Your task to perform on an android device: add a contact Image 0: 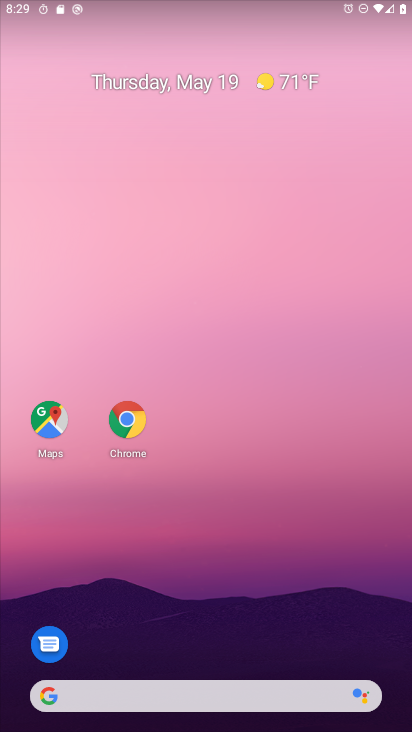
Step 0: drag from (200, 678) to (198, 300)
Your task to perform on an android device: add a contact Image 1: 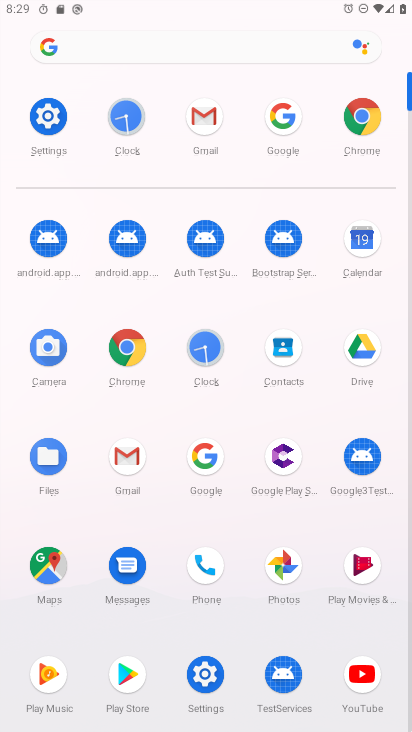
Step 1: click (276, 355)
Your task to perform on an android device: add a contact Image 2: 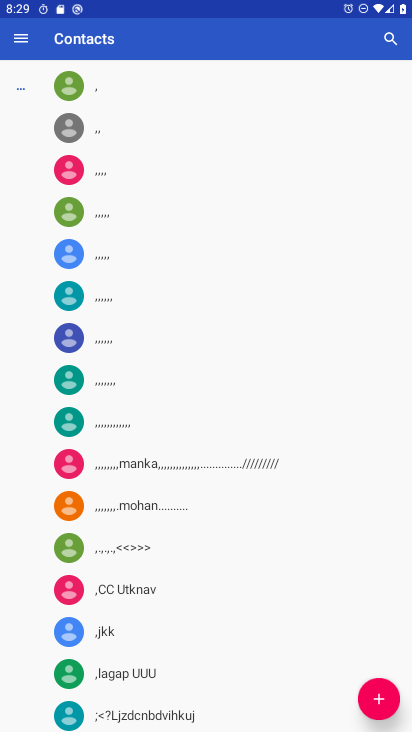
Step 2: click (373, 698)
Your task to perform on an android device: add a contact Image 3: 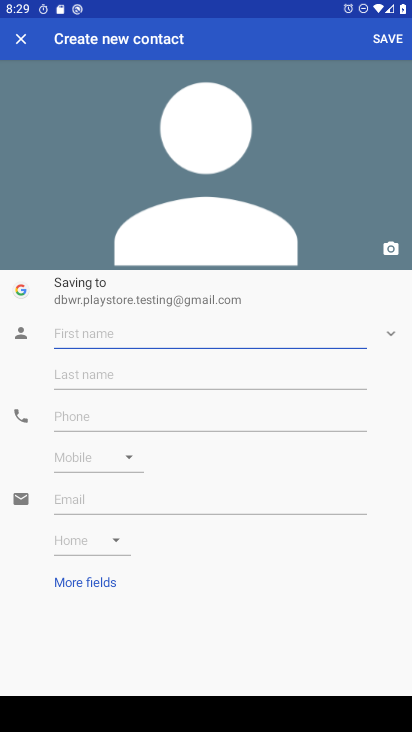
Step 3: click (110, 340)
Your task to perform on an android device: add a contact Image 4: 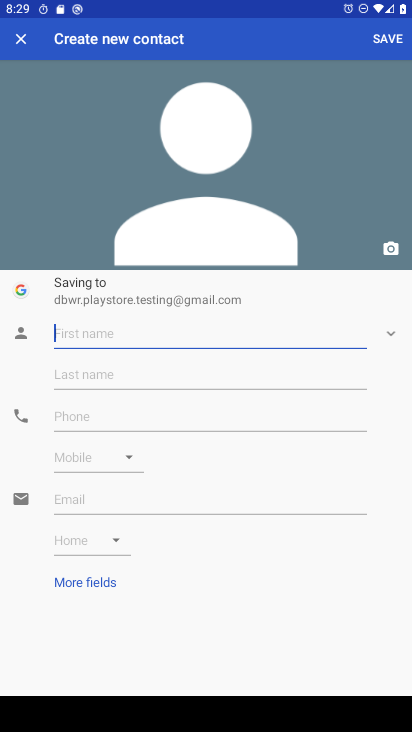
Step 4: type "cc"
Your task to perform on an android device: add a contact Image 5: 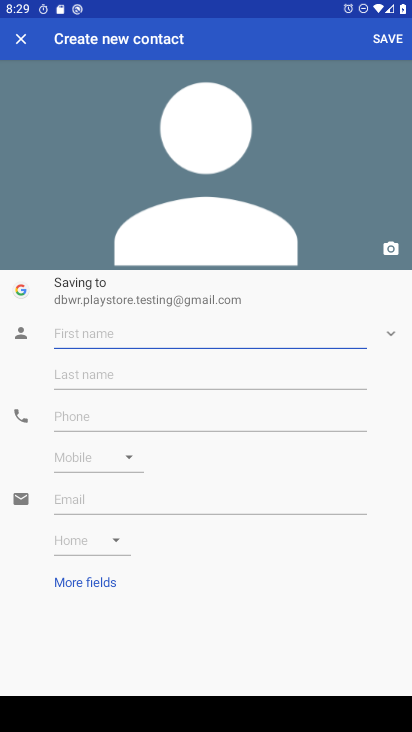
Step 5: click (69, 371)
Your task to perform on an android device: add a contact Image 6: 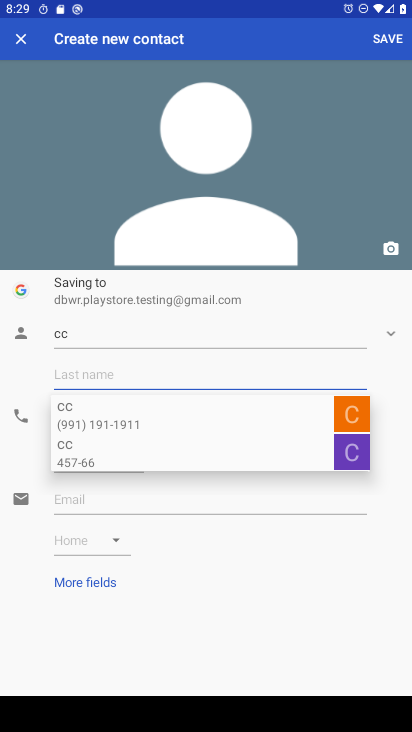
Step 6: type "ss"
Your task to perform on an android device: add a contact Image 7: 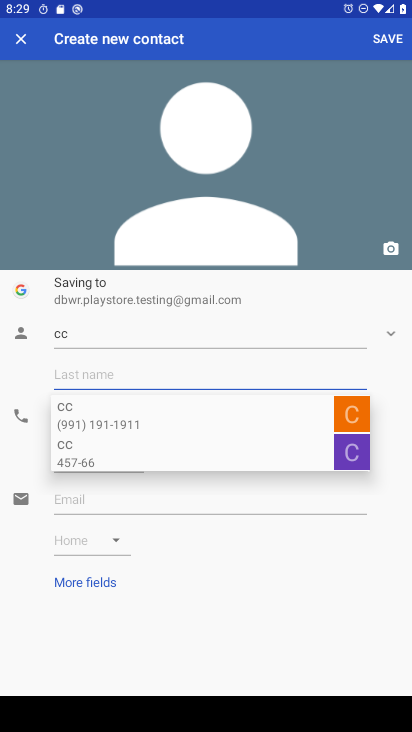
Step 7: click (139, 493)
Your task to perform on an android device: add a contact Image 8: 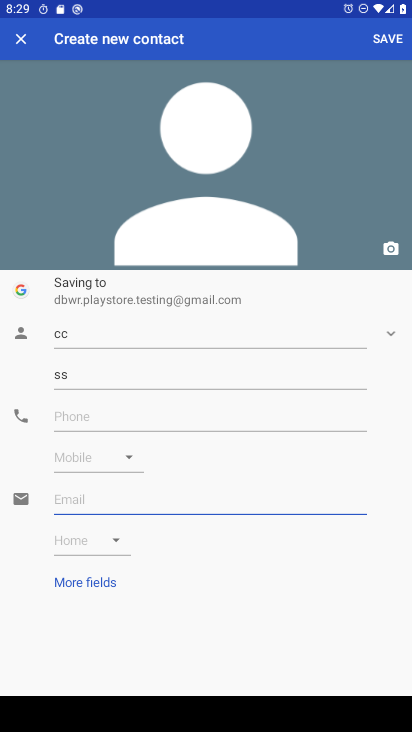
Step 8: click (80, 417)
Your task to perform on an android device: add a contact Image 9: 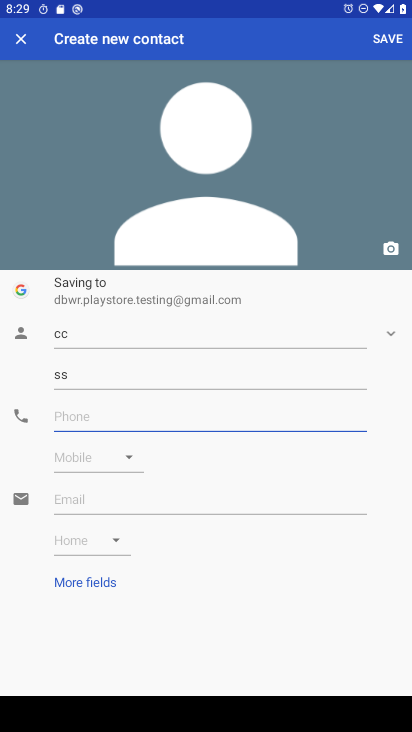
Step 9: type "7676767576"
Your task to perform on an android device: add a contact Image 10: 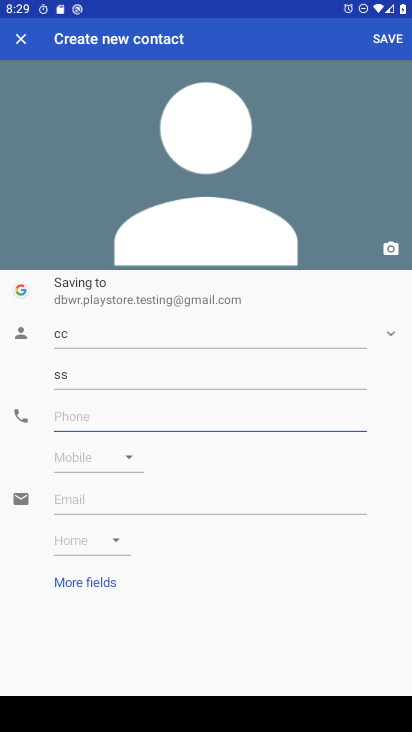
Step 10: click (93, 501)
Your task to perform on an android device: add a contact Image 11: 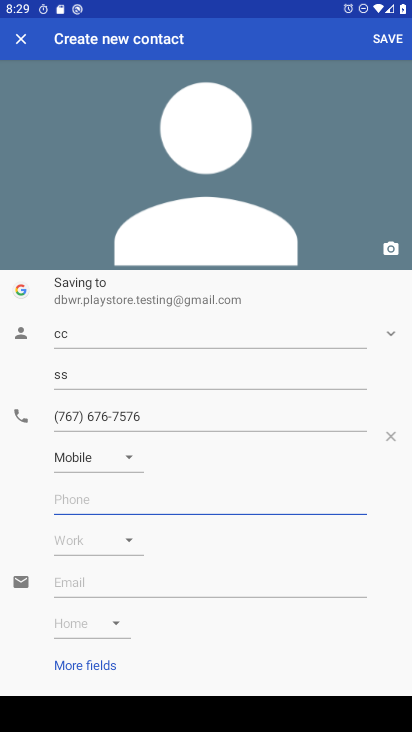
Step 11: click (391, 17)
Your task to perform on an android device: add a contact Image 12: 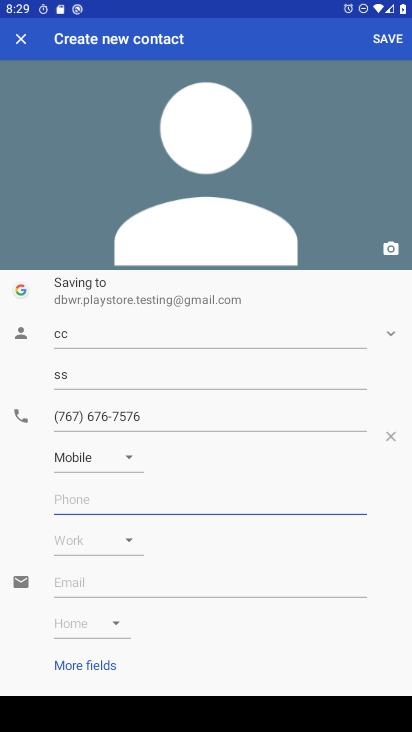
Step 12: click (391, 44)
Your task to perform on an android device: add a contact Image 13: 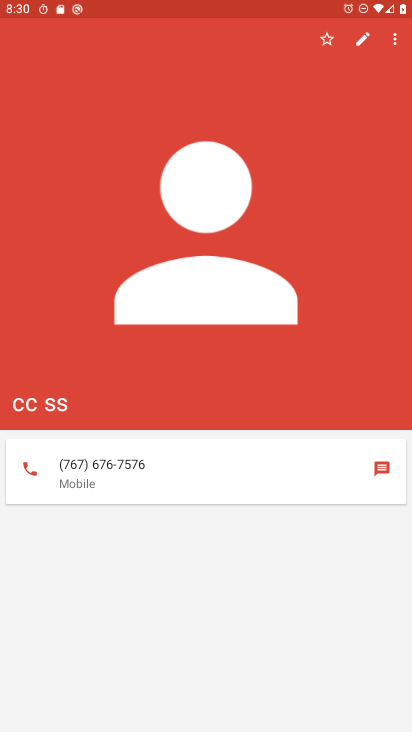
Step 13: task complete